Your task to perform on an android device: Open the web browser Image 0: 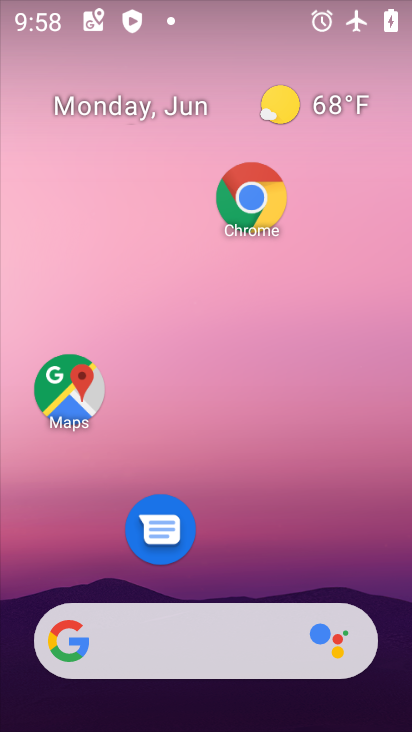
Step 0: click (227, 211)
Your task to perform on an android device: Open the web browser Image 1: 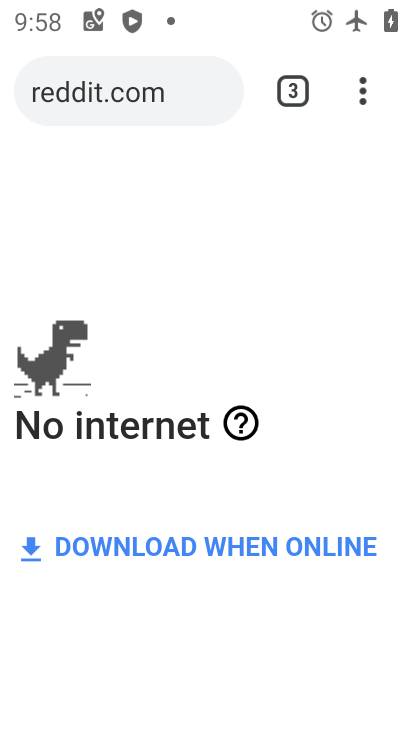
Step 1: task complete